Your task to perform on an android device: Open the calendar app, open the side menu, and click the "Day" option Image 0: 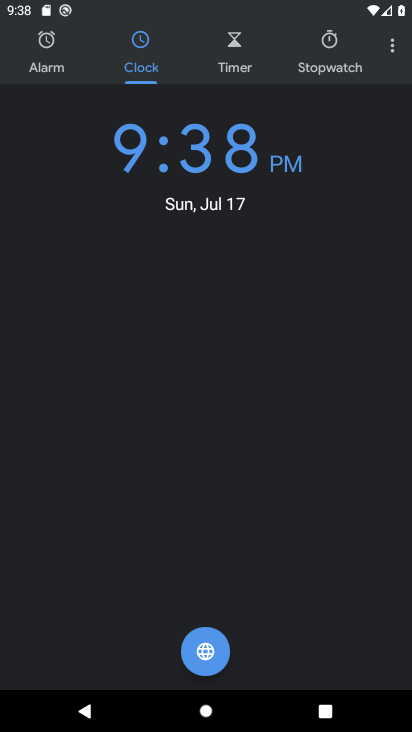
Step 0: press home button
Your task to perform on an android device: Open the calendar app, open the side menu, and click the "Day" option Image 1: 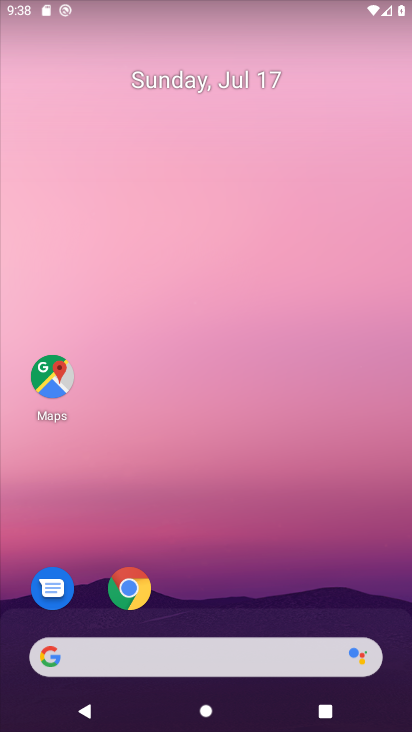
Step 1: drag from (208, 621) to (179, 222)
Your task to perform on an android device: Open the calendar app, open the side menu, and click the "Day" option Image 2: 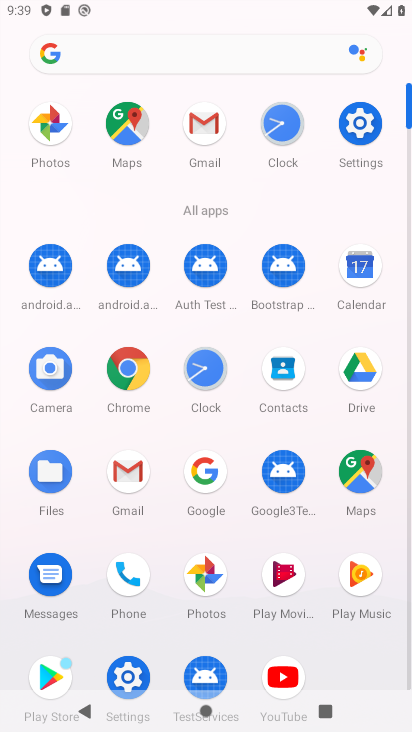
Step 2: click (365, 255)
Your task to perform on an android device: Open the calendar app, open the side menu, and click the "Day" option Image 3: 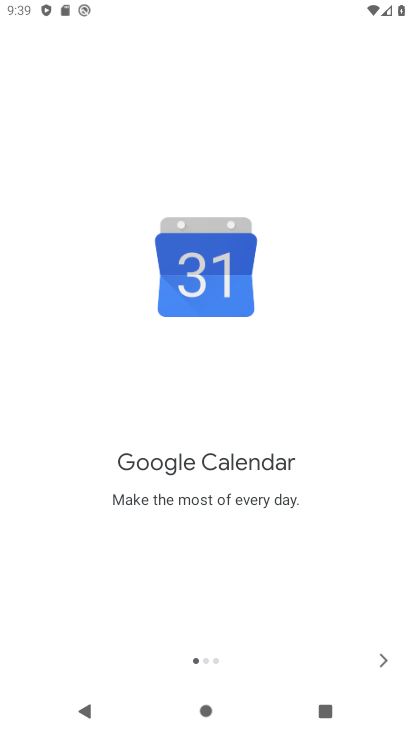
Step 3: click (388, 661)
Your task to perform on an android device: Open the calendar app, open the side menu, and click the "Day" option Image 4: 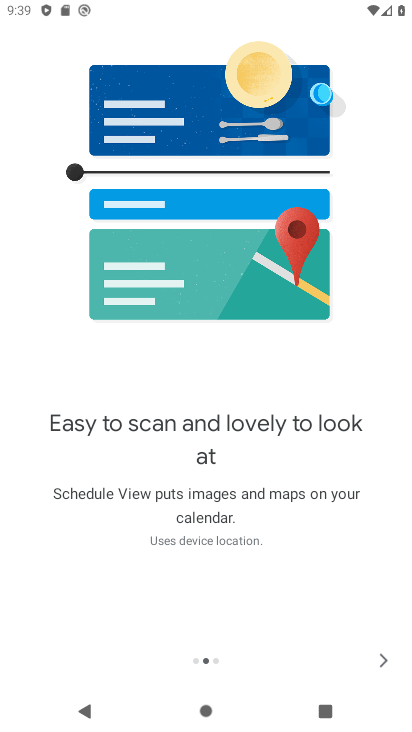
Step 4: click (384, 659)
Your task to perform on an android device: Open the calendar app, open the side menu, and click the "Day" option Image 5: 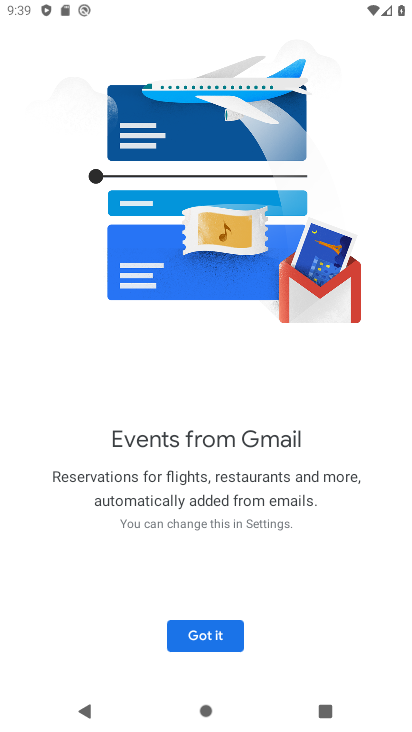
Step 5: click (208, 627)
Your task to perform on an android device: Open the calendar app, open the side menu, and click the "Day" option Image 6: 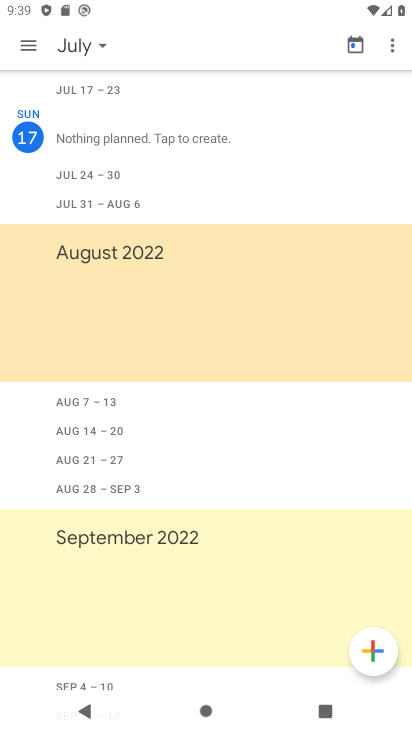
Step 6: click (26, 38)
Your task to perform on an android device: Open the calendar app, open the side menu, and click the "Day" option Image 7: 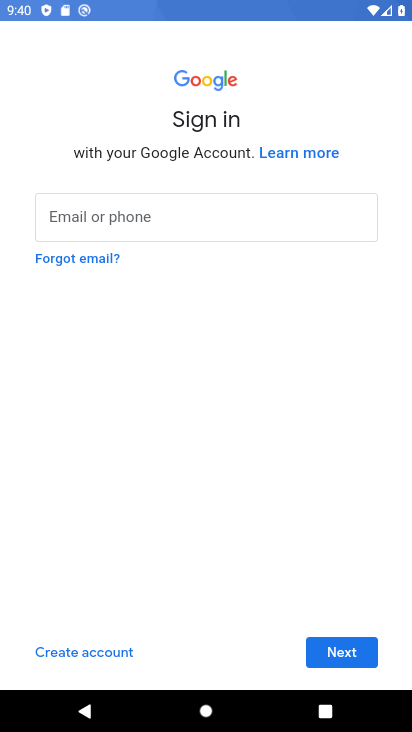
Step 7: press home button
Your task to perform on an android device: Open the calendar app, open the side menu, and click the "Day" option Image 8: 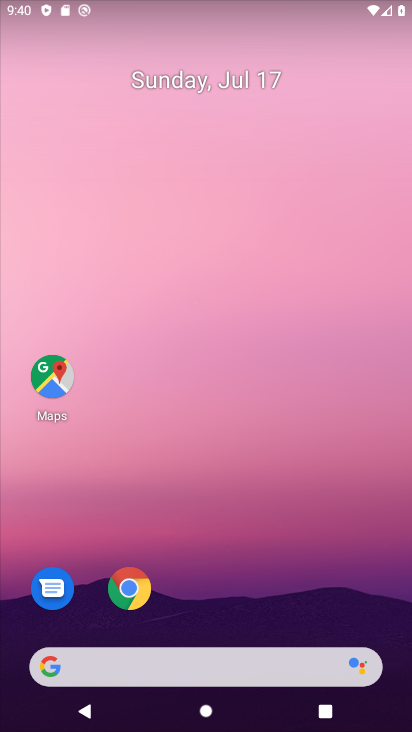
Step 8: drag from (171, 564) to (143, 9)
Your task to perform on an android device: Open the calendar app, open the side menu, and click the "Day" option Image 9: 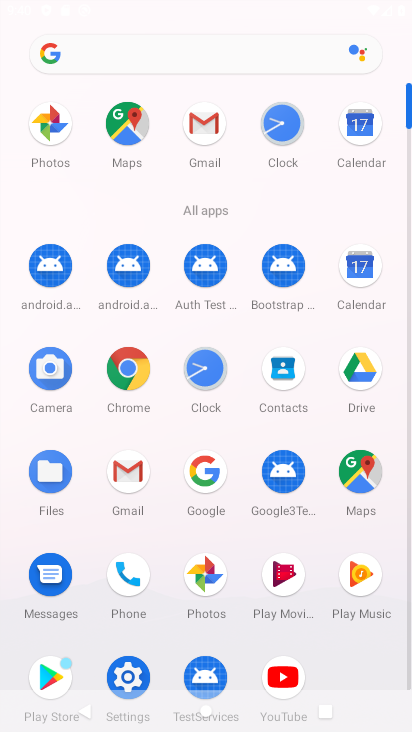
Step 9: click (365, 117)
Your task to perform on an android device: Open the calendar app, open the side menu, and click the "Day" option Image 10: 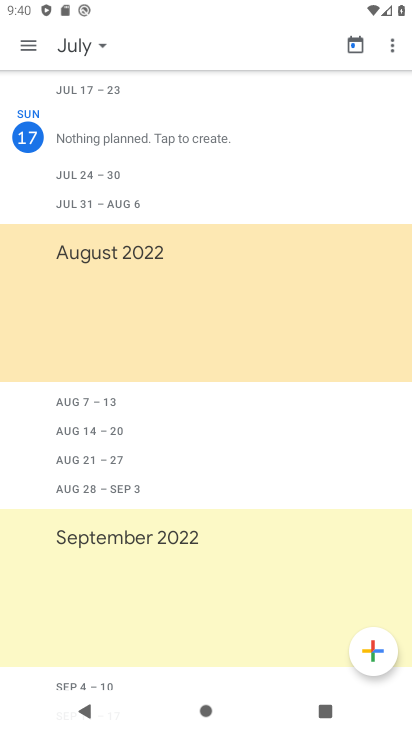
Step 10: click (28, 45)
Your task to perform on an android device: Open the calendar app, open the side menu, and click the "Day" option Image 11: 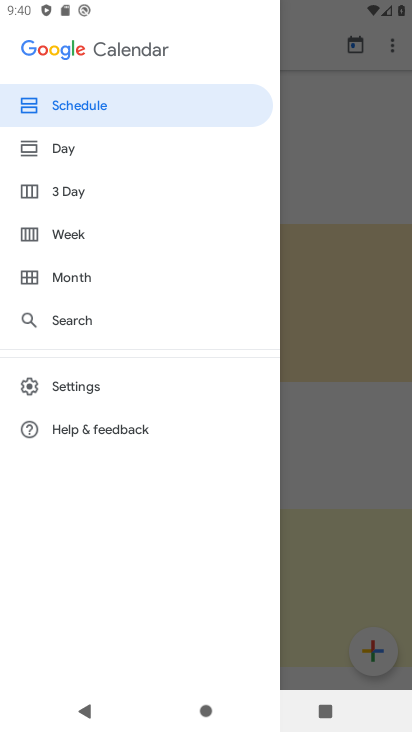
Step 11: click (68, 144)
Your task to perform on an android device: Open the calendar app, open the side menu, and click the "Day" option Image 12: 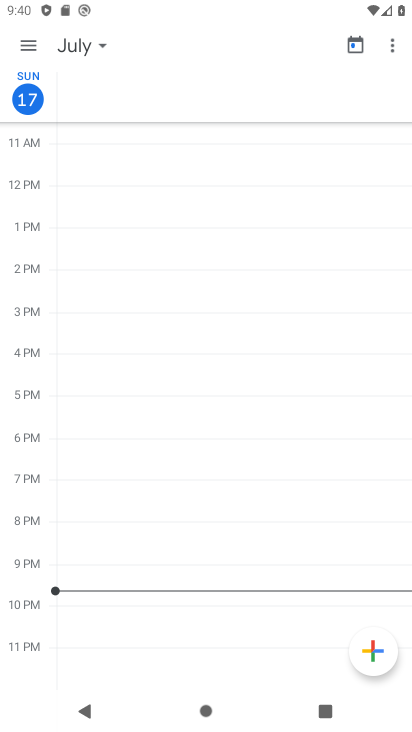
Step 12: task complete